Your task to perform on an android device: set an alarm Image 0: 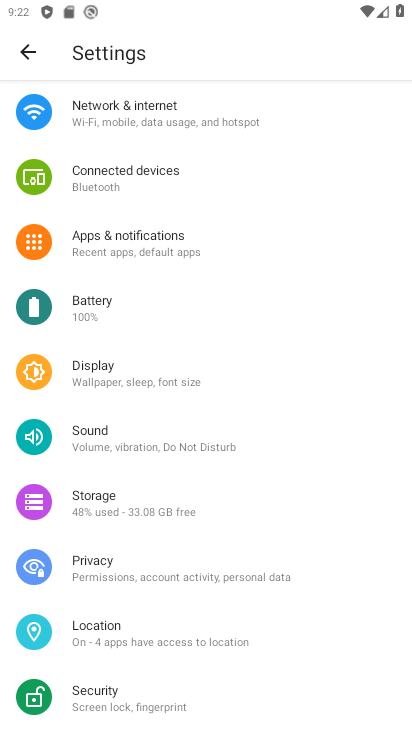
Step 0: press home button
Your task to perform on an android device: set an alarm Image 1: 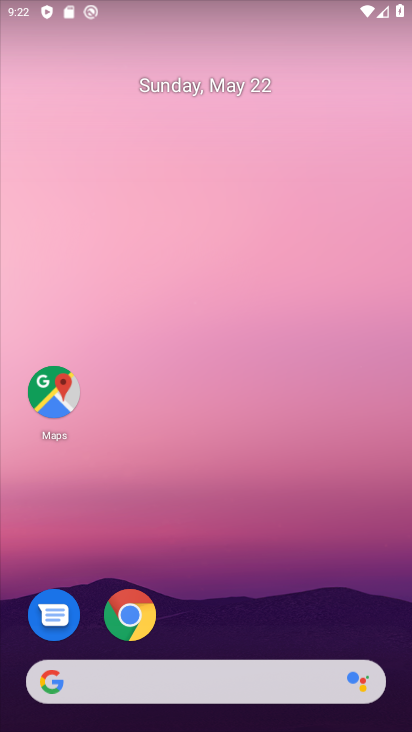
Step 1: drag from (225, 621) to (217, 285)
Your task to perform on an android device: set an alarm Image 2: 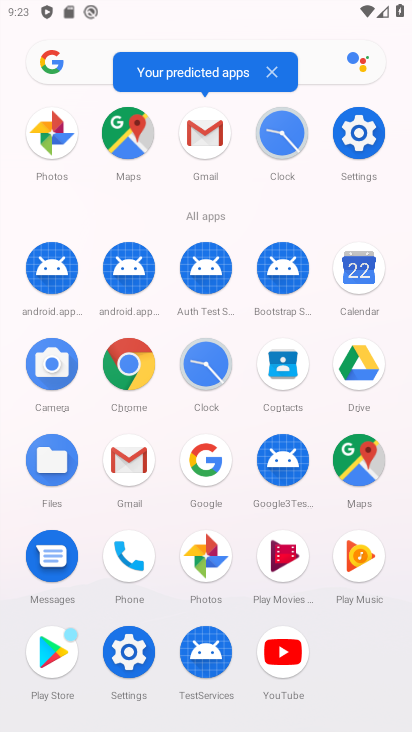
Step 2: click (197, 374)
Your task to perform on an android device: set an alarm Image 3: 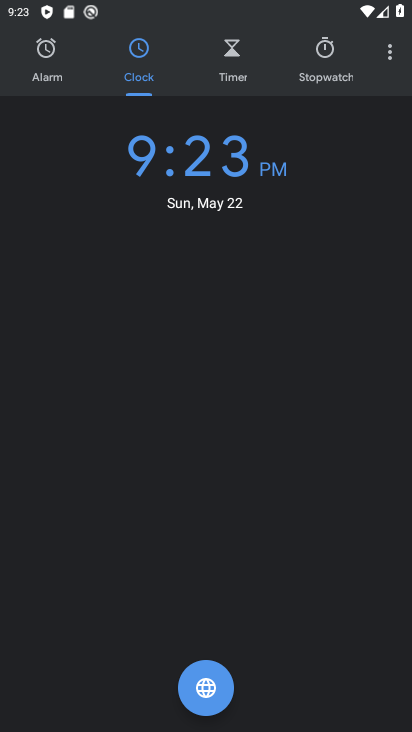
Step 3: click (49, 49)
Your task to perform on an android device: set an alarm Image 4: 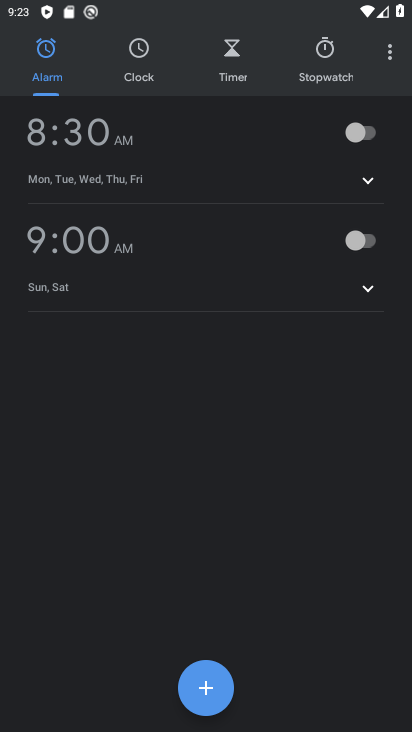
Step 4: click (205, 687)
Your task to perform on an android device: set an alarm Image 5: 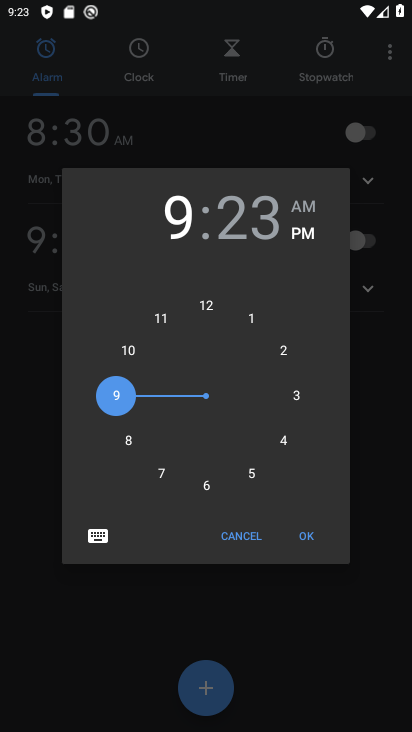
Step 5: click (303, 528)
Your task to perform on an android device: set an alarm Image 6: 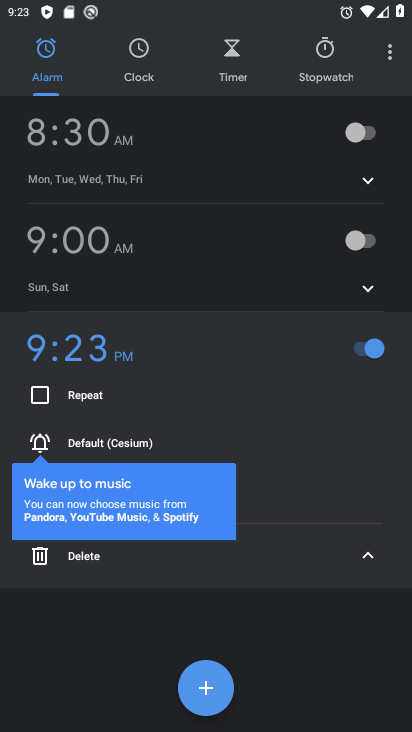
Step 6: task complete